Your task to perform on an android device: Open eBay Image 0: 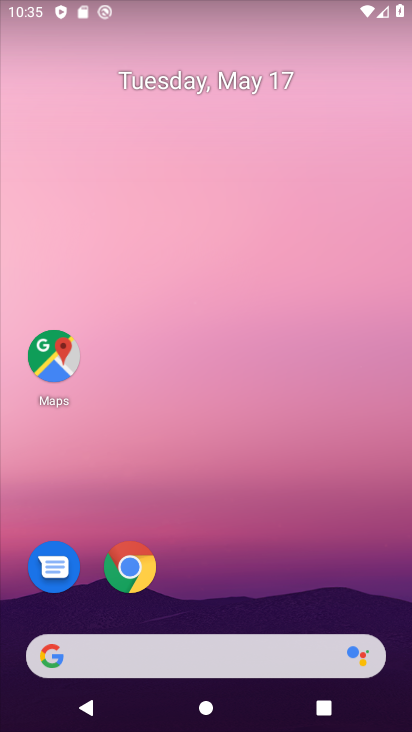
Step 0: click (135, 574)
Your task to perform on an android device: Open eBay Image 1: 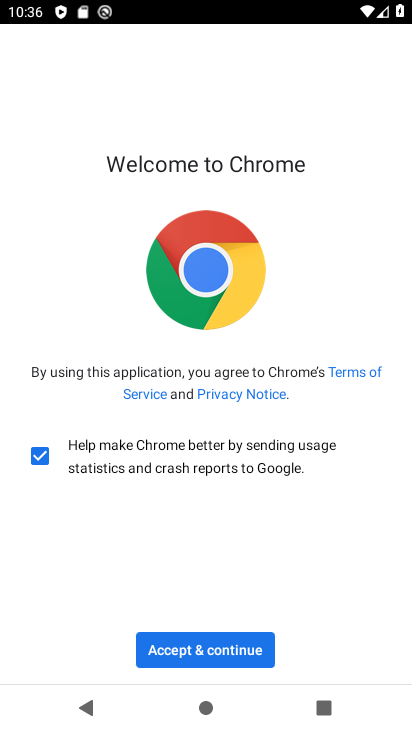
Step 1: click (212, 634)
Your task to perform on an android device: Open eBay Image 2: 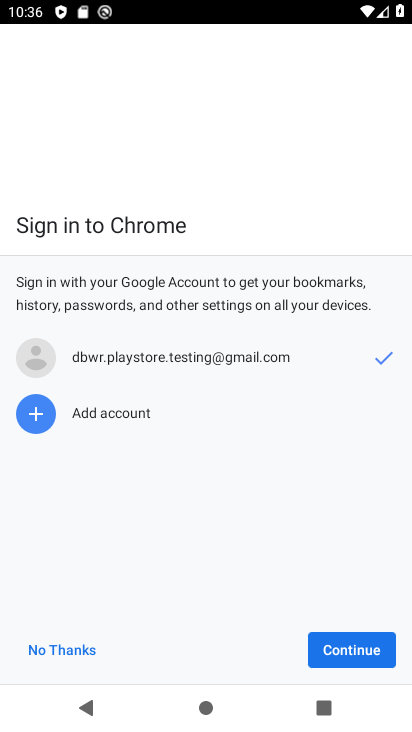
Step 2: click (381, 647)
Your task to perform on an android device: Open eBay Image 3: 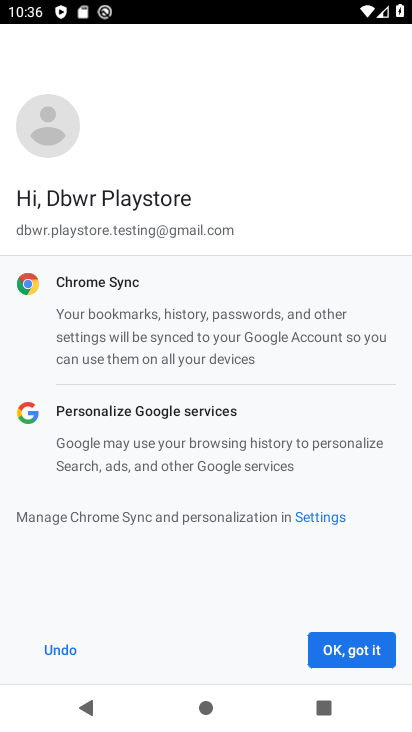
Step 3: click (377, 650)
Your task to perform on an android device: Open eBay Image 4: 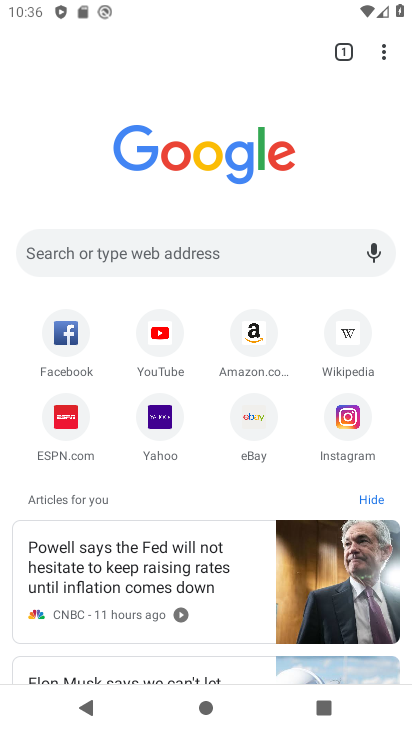
Step 4: click (258, 421)
Your task to perform on an android device: Open eBay Image 5: 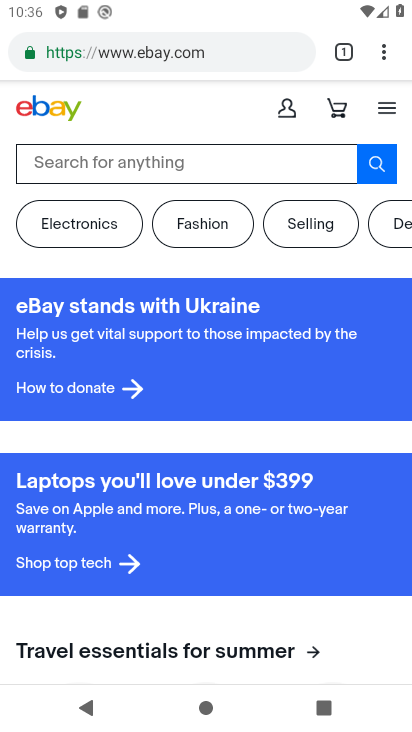
Step 5: task complete